Your task to perform on an android device: find snoozed emails in the gmail app Image 0: 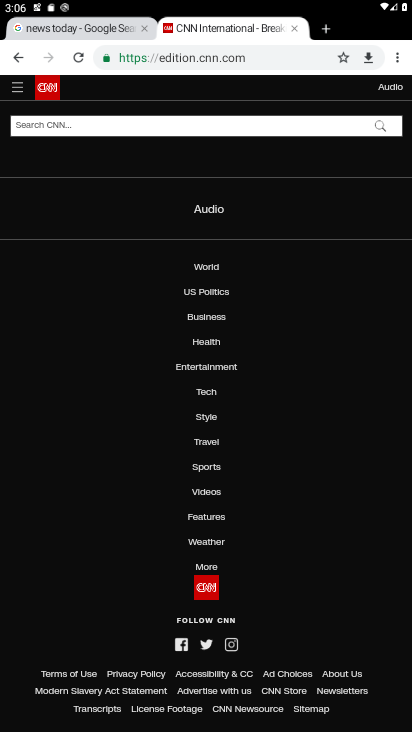
Step 0: task complete